Your task to perform on an android device: Open sound settings Image 0: 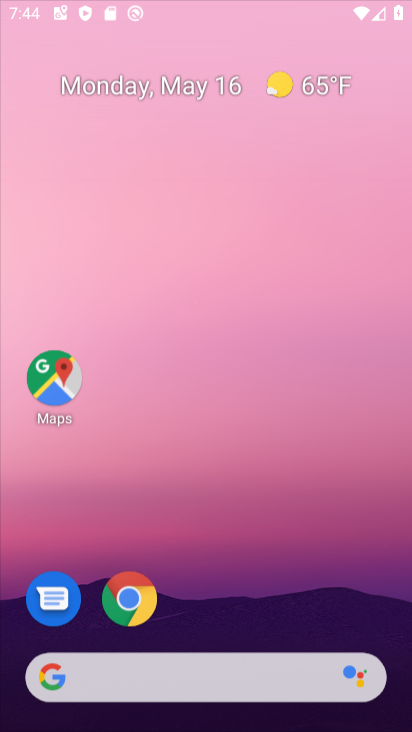
Step 0: click (375, 36)
Your task to perform on an android device: Open sound settings Image 1: 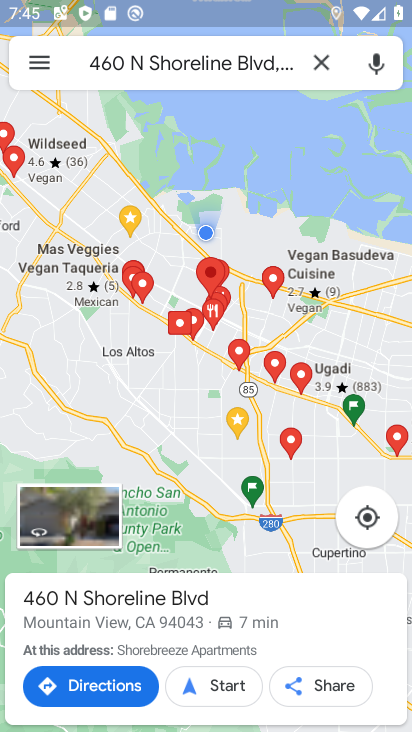
Step 1: drag from (116, 552) to (281, 120)
Your task to perform on an android device: Open sound settings Image 2: 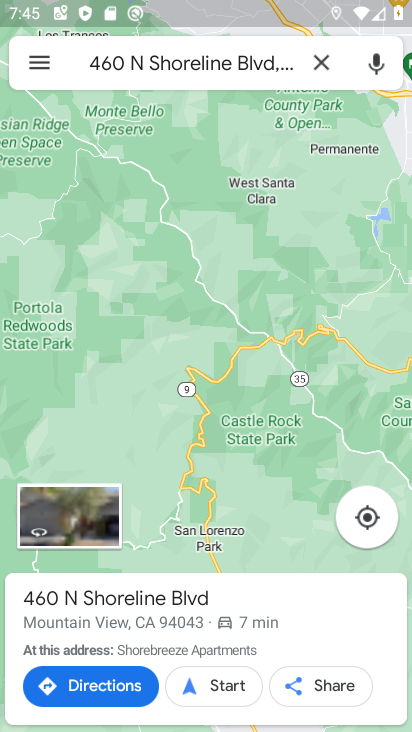
Step 2: press home button
Your task to perform on an android device: Open sound settings Image 3: 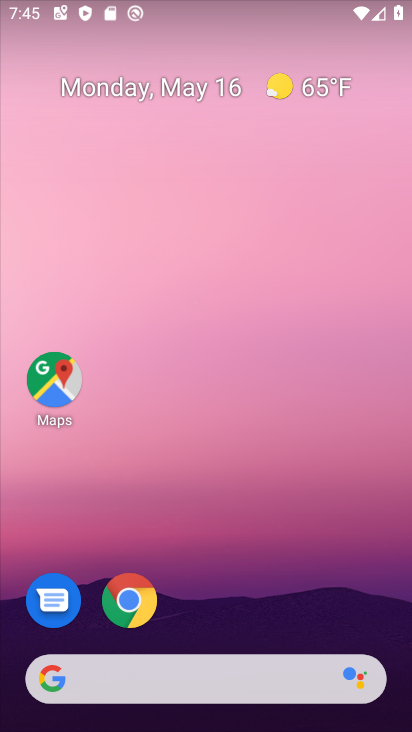
Step 3: drag from (212, 640) to (388, 154)
Your task to perform on an android device: Open sound settings Image 4: 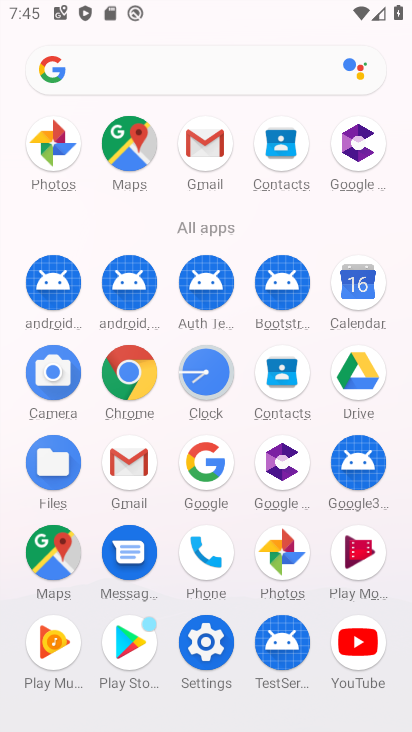
Step 4: click (208, 653)
Your task to perform on an android device: Open sound settings Image 5: 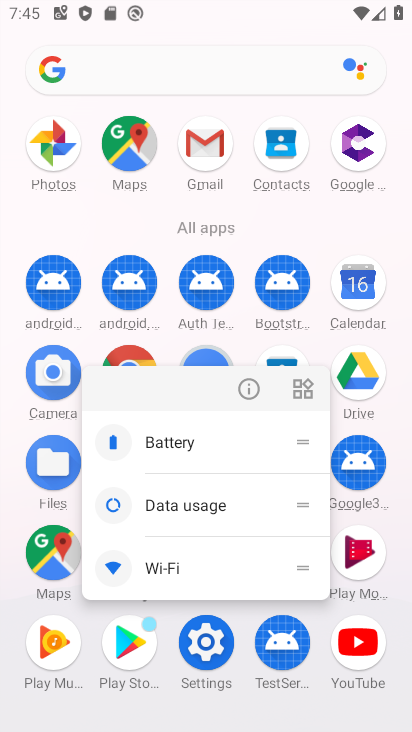
Step 5: click (233, 396)
Your task to perform on an android device: Open sound settings Image 6: 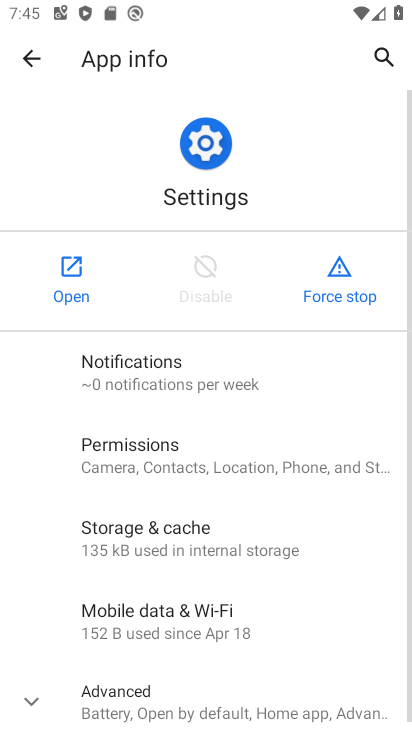
Step 6: click (56, 265)
Your task to perform on an android device: Open sound settings Image 7: 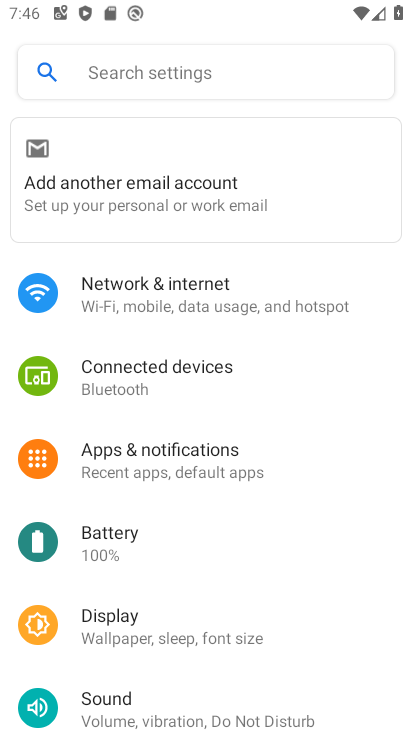
Step 7: drag from (193, 608) to (312, 86)
Your task to perform on an android device: Open sound settings Image 8: 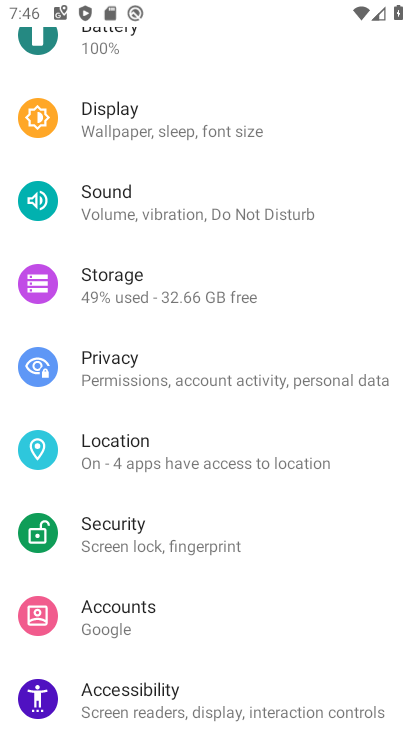
Step 8: click (109, 200)
Your task to perform on an android device: Open sound settings Image 9: 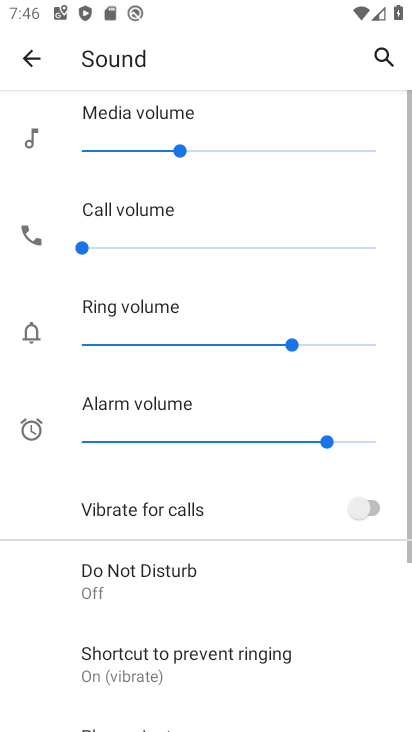
Step 9: task complete